Your task to perform on an android device: delete location history Image 0: 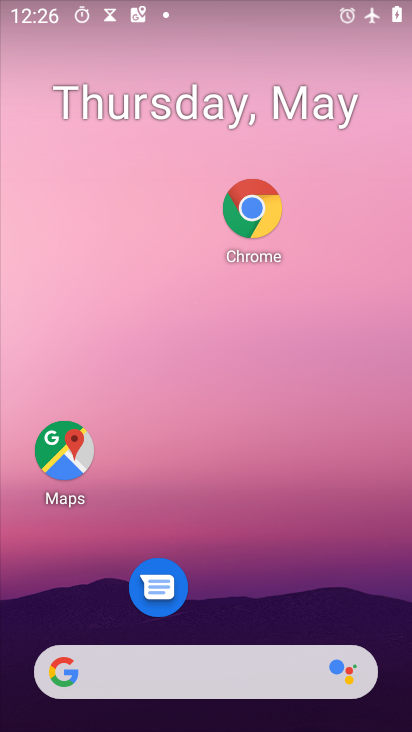
Step 0: drag from (192, 192) to (115, 16)
Your task to perform on an android device: delete location history Image 1: 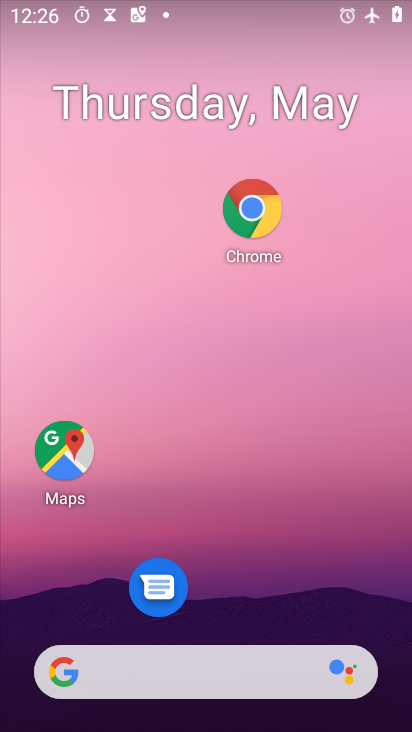
Step 1: drag from (218, 615) to (176, 84)
Your task to perform on an android device: delete location history Image 2: 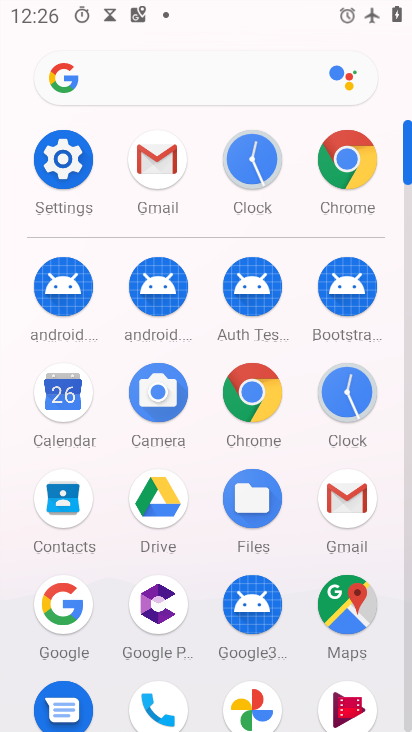
Step 2: click (349, 641)
Your task to perform on an android device: delete location history Image 3: 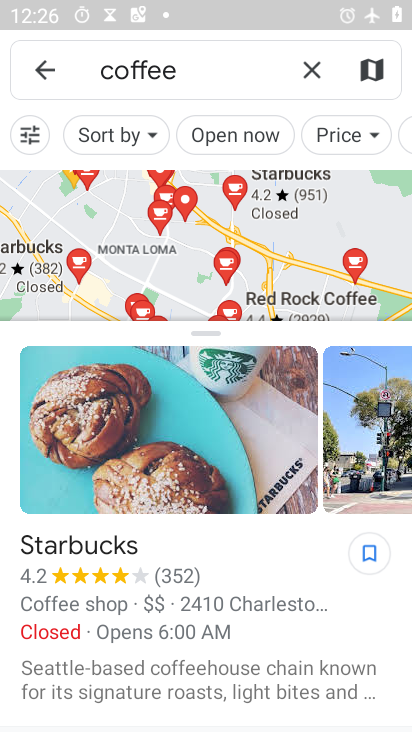
Step 3: click (49, 70)
Your task to perform on an android device: delete location history Image 4: 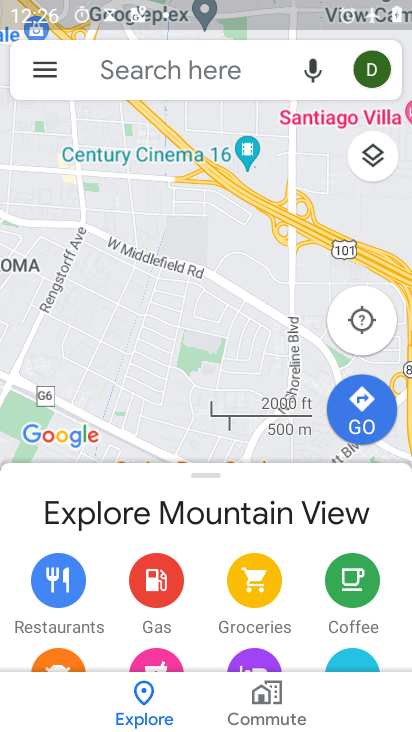
Step 4: click (49, 70)
Your task to perform on an android device: delete location history Image 5: 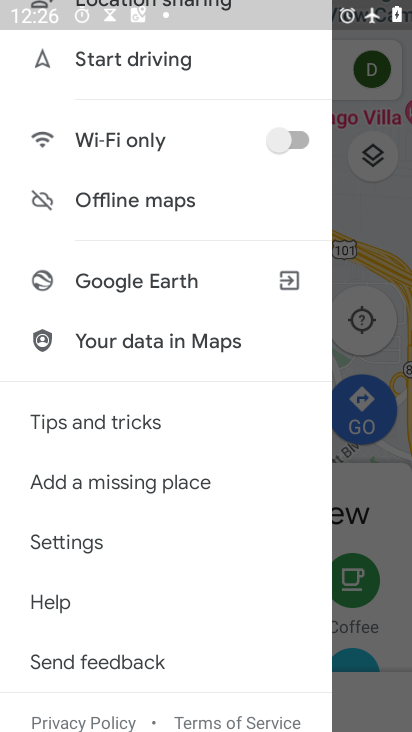
Step 5: drag from (150, 625) to (113, 395)
Your task to perform on an android device: delete location history Image 6: 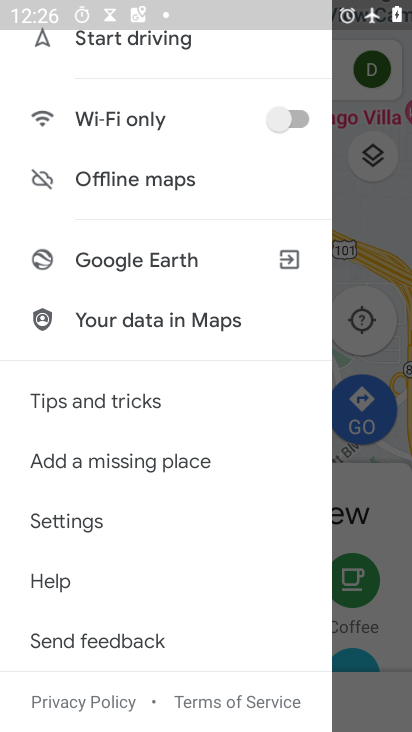
Step 6: drag from (129, 259) to (143, 695)
Your task to perform on an android device: delete location history Image 7: 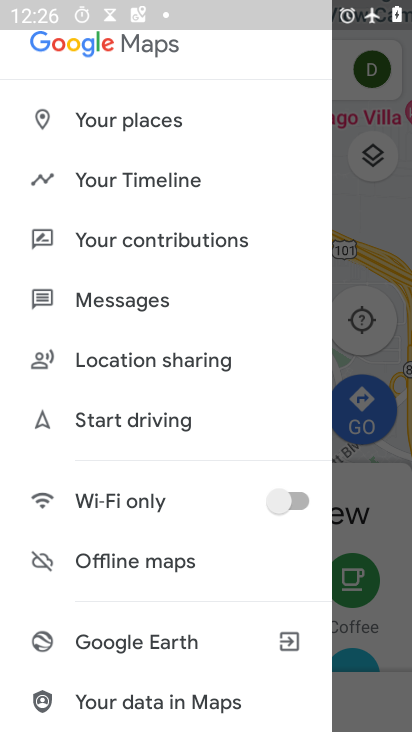
Step 7: click (178, 179)
Your task to perform on an android device: delete location history Image 8: 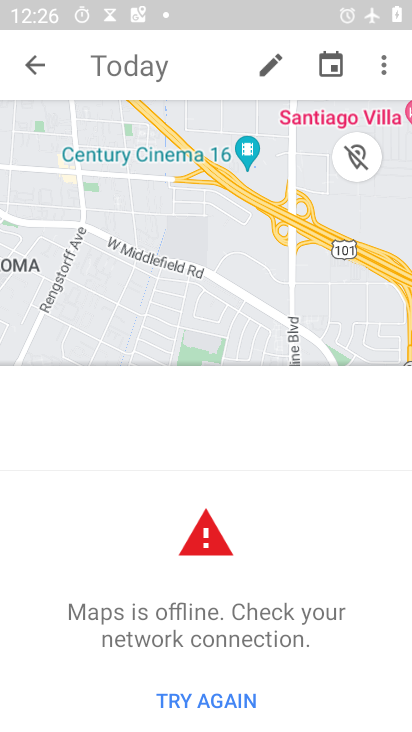
Step 8: task complete